Your task to perform on an android device: make emails show in primary in the gmail app Image 0: 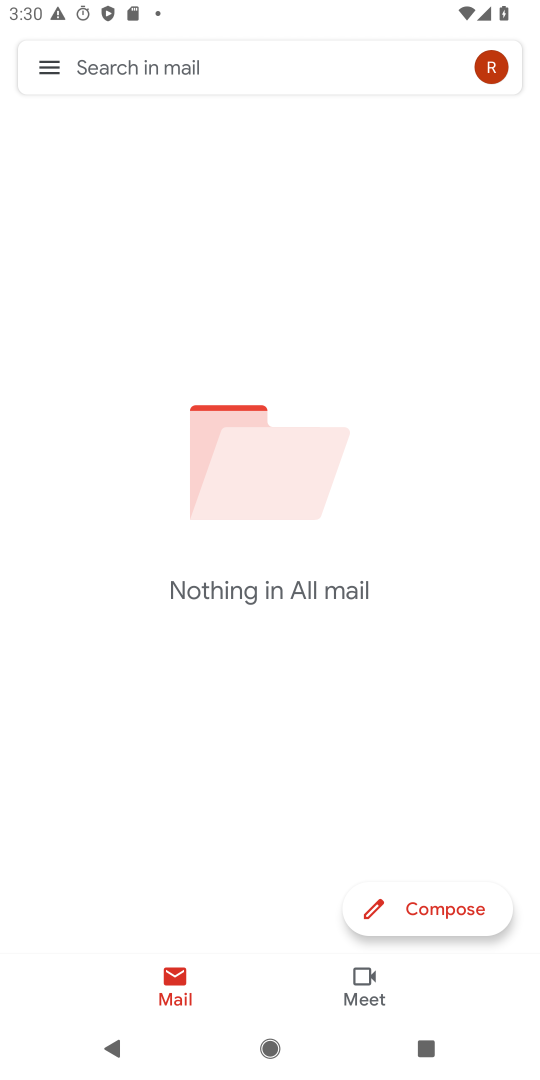
Step 0: click (44, 56)
Your task to perform on an android device: make emails show in primary in the gmail app Image 1: 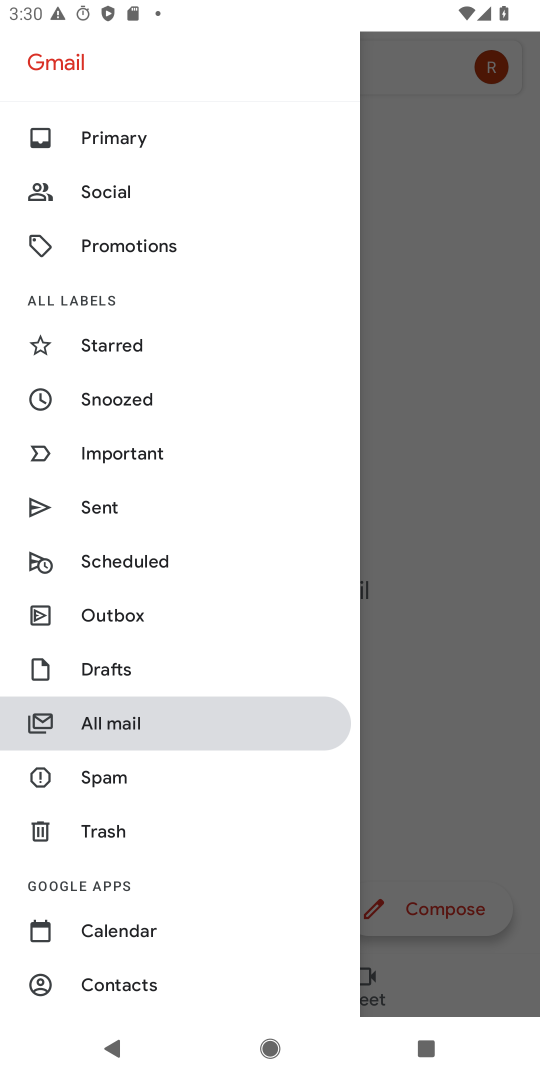
Step 1: drag from (143, 892) to (171, 289)
Your task to perform on an android device: make emails show in primary in the gmail app Image 2: 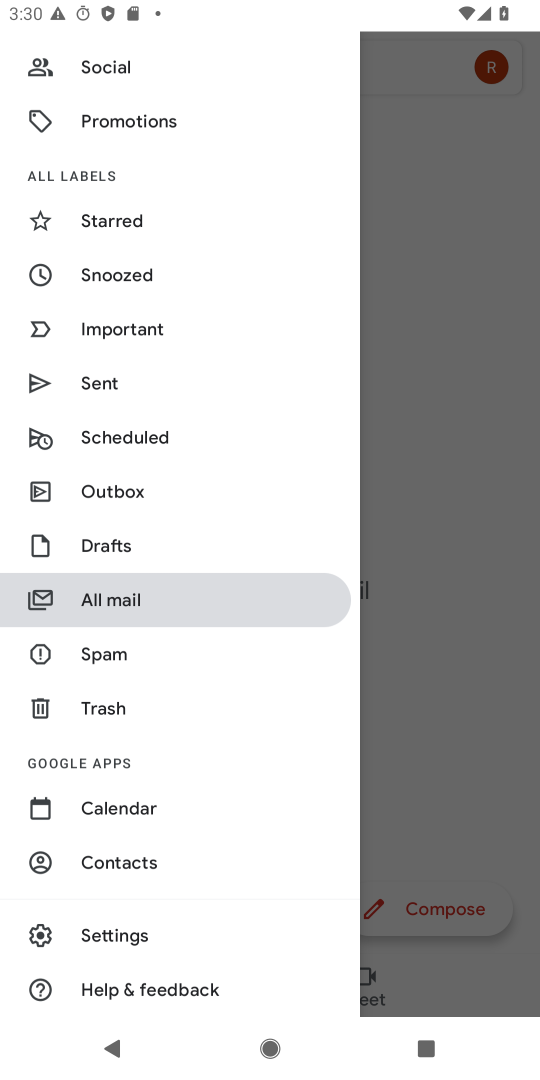
Step 2: drag from (134, 795) to (135, 695)
Your task to perform on an android device: make emails show in primary in the gmail app Image 3: 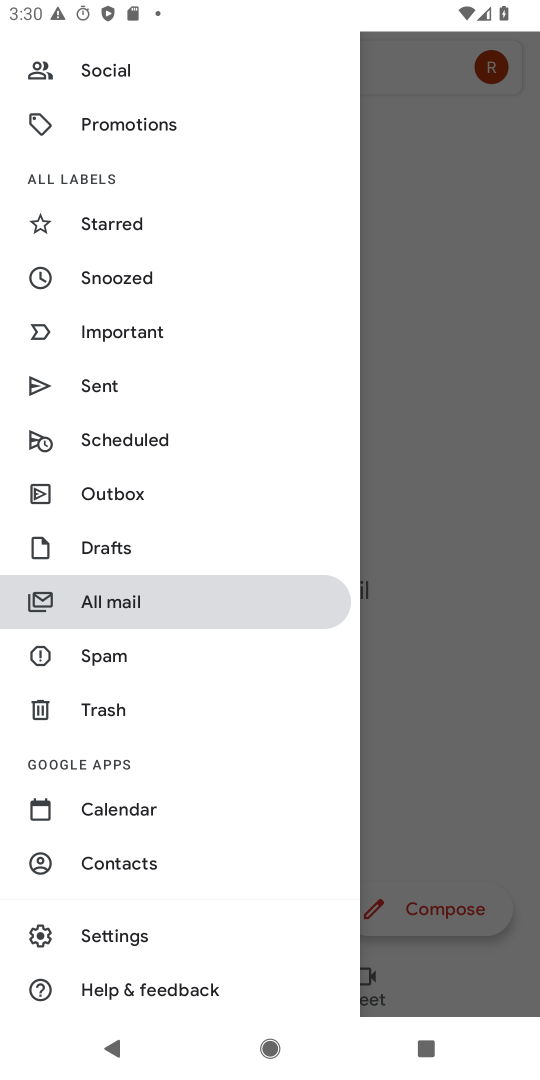
Step 3: click (119, 943)
Your task to perform on an android device: make emails show in primary in the gmail app Image 4: 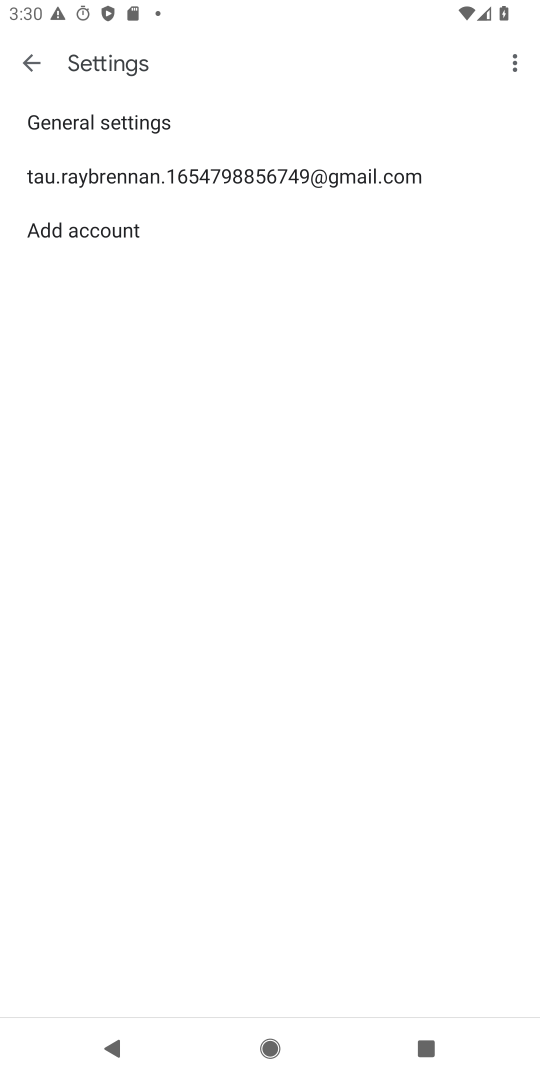
Step 4: click (159, 182)
Your task to perform on an android device: make emails show in primary in the gmail app Image 5: 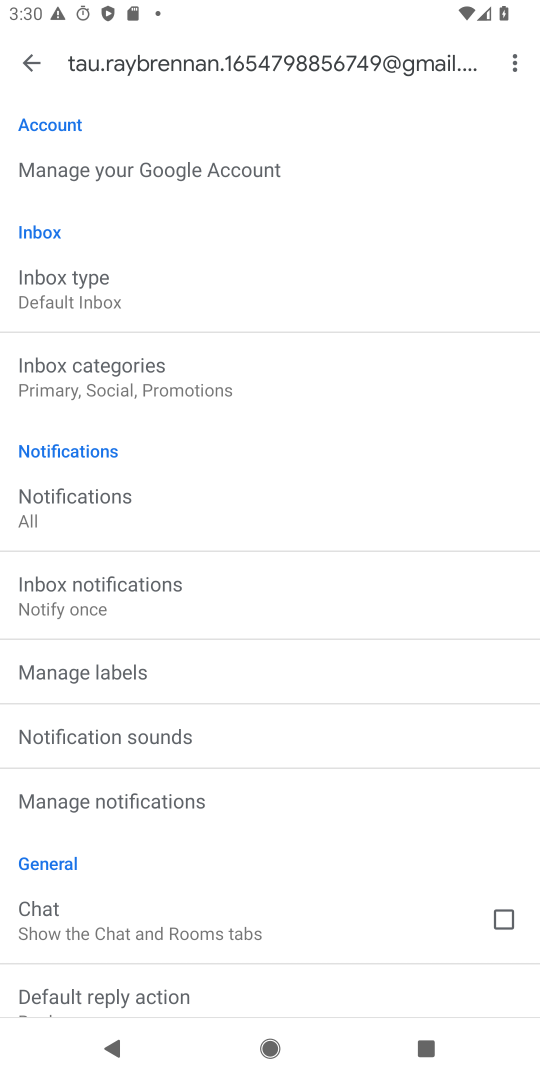
Step 5: click (82, 375)
Your task to perform on an android device: make emails show in primary in the gmail app Image 6: 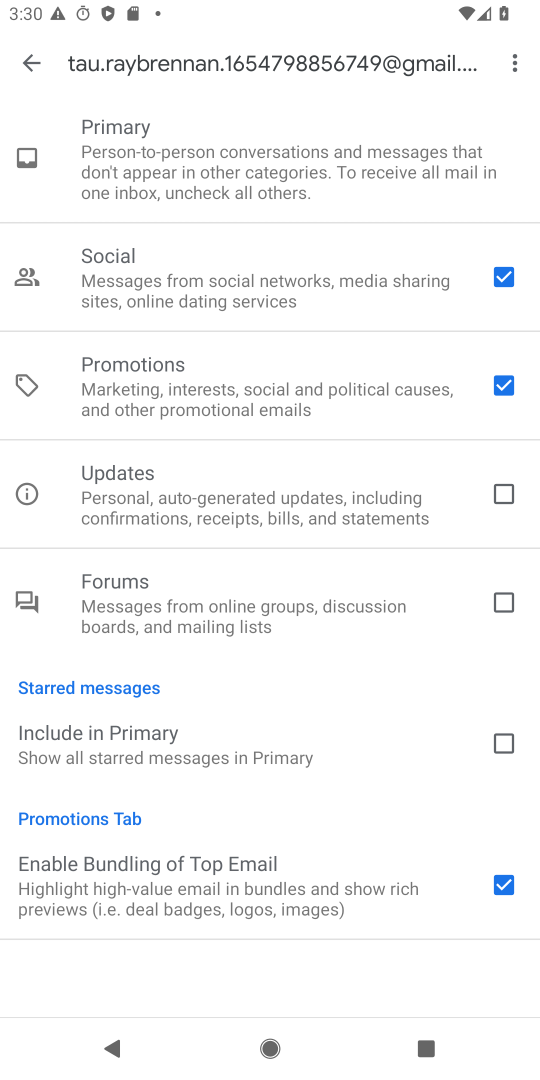
Step 6: click (508, 886)
Your task to perform on an android device: make emails show in primary in the gmail app Image 7: 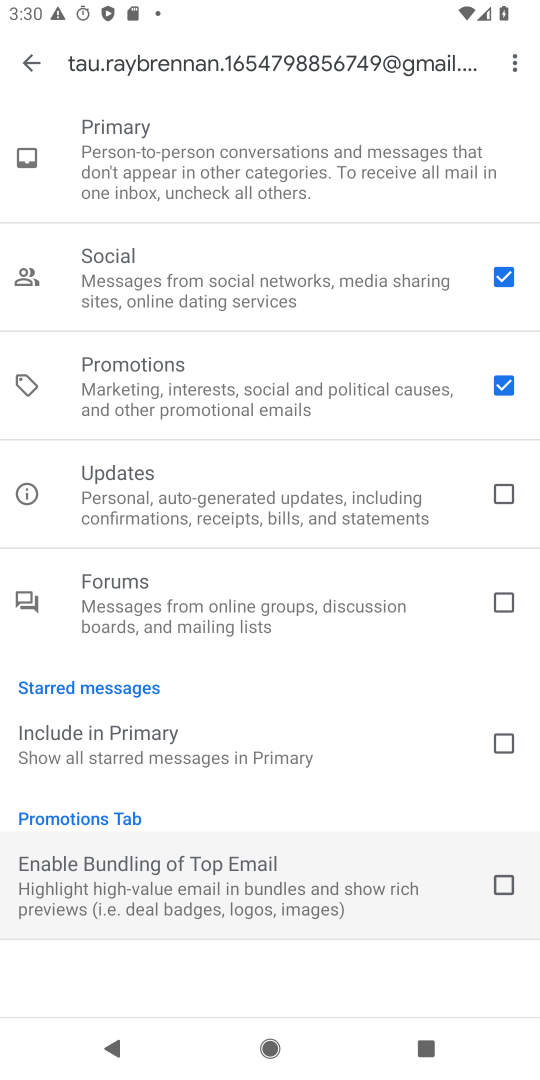
Step 7: click (498, 390)
Your task to perform on an android device: make emails show in primary in the gmail app Image 8: 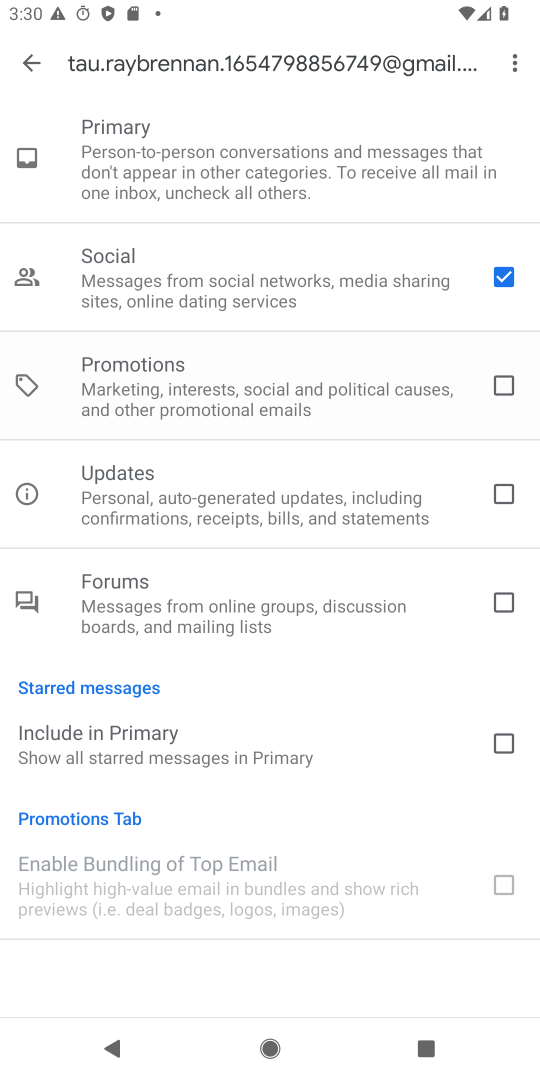
Step 8: click (501, 266)
Your task to perform on an android device: make emails show in primary in the gmail app Image 9: 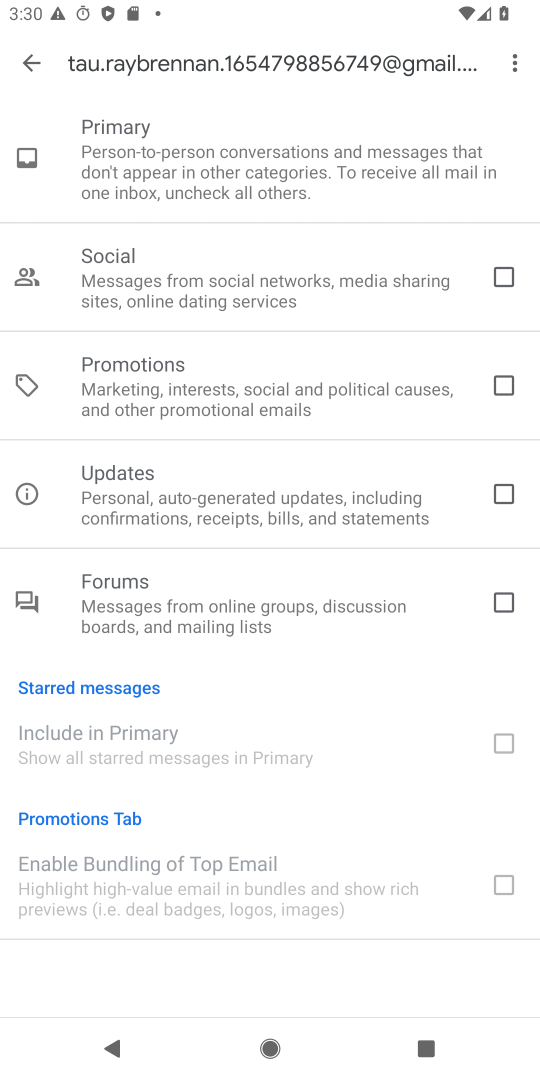
Step 9: task complete